Your task to perform on an android device: turn off location Image 0: 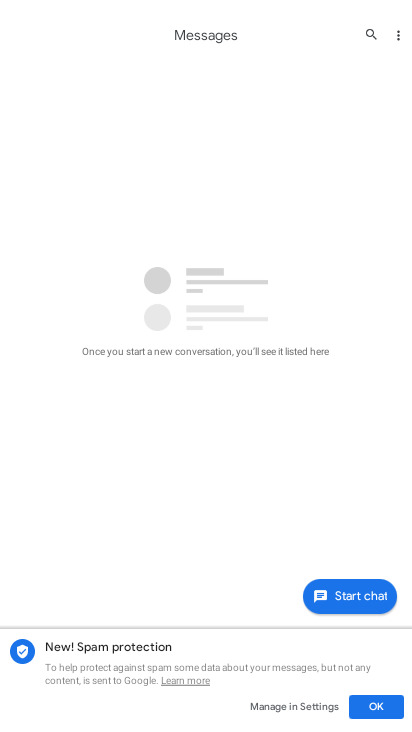
Step 0: press home button
Your task to perform on an android device: turn off location Image 1: 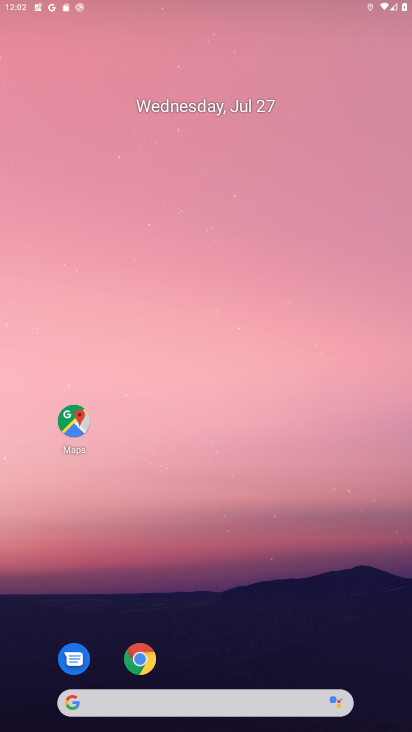
Step 1: drag from (239, 684) to (219, 12)
Your task to perform on an android device: turn off location Image 2: 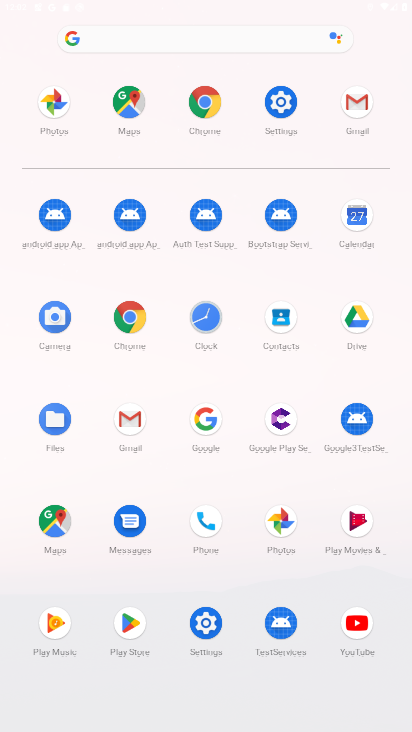
Step 2: click (273, 99)
Your task to perform on an android device: turn off location Image 3: 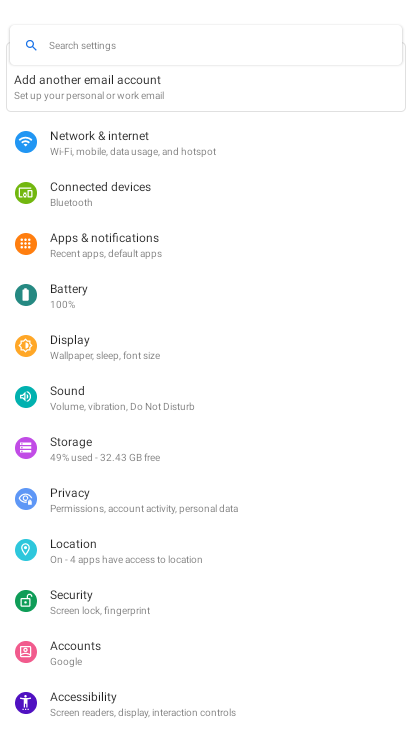
Step 3: click (104, 548)
Your task to perform on an android device: turn off location Image 4: 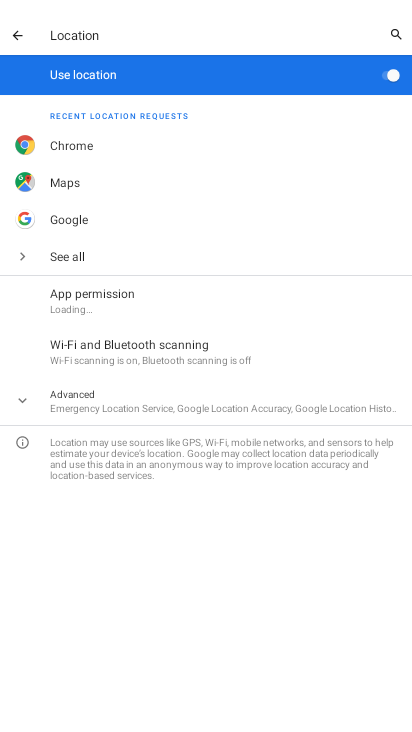
Step 4: click (392, 77)
Your task to perform on an android device: turn off location Image 5: 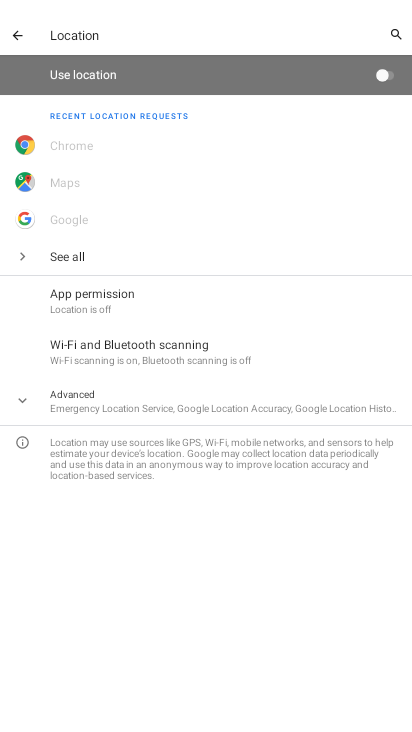
Step 5: task complete